Your task to perform on an android device: Clear all items from cart on walmart. Image 0: 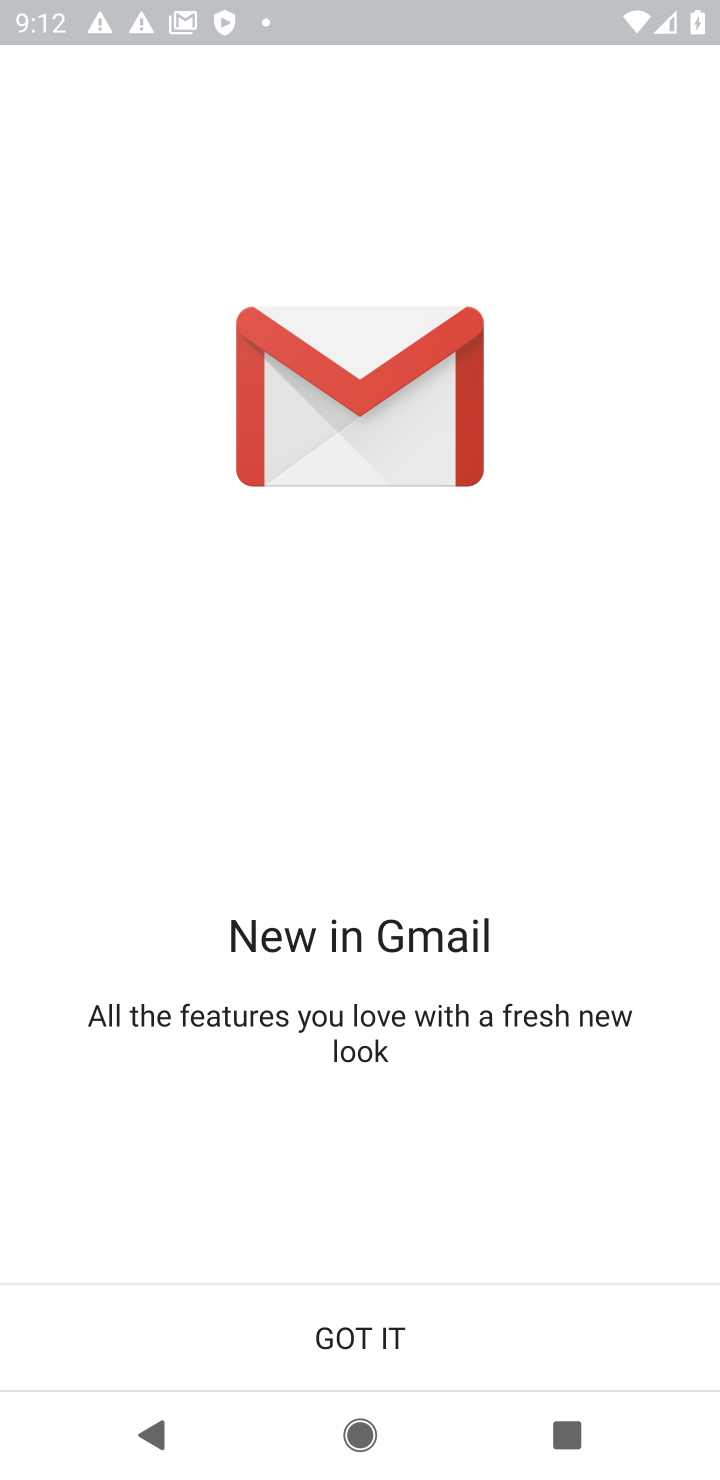
Step 0: press home button
Your task to perform on an android device: Clear all items from cart on walmart. Image 1: 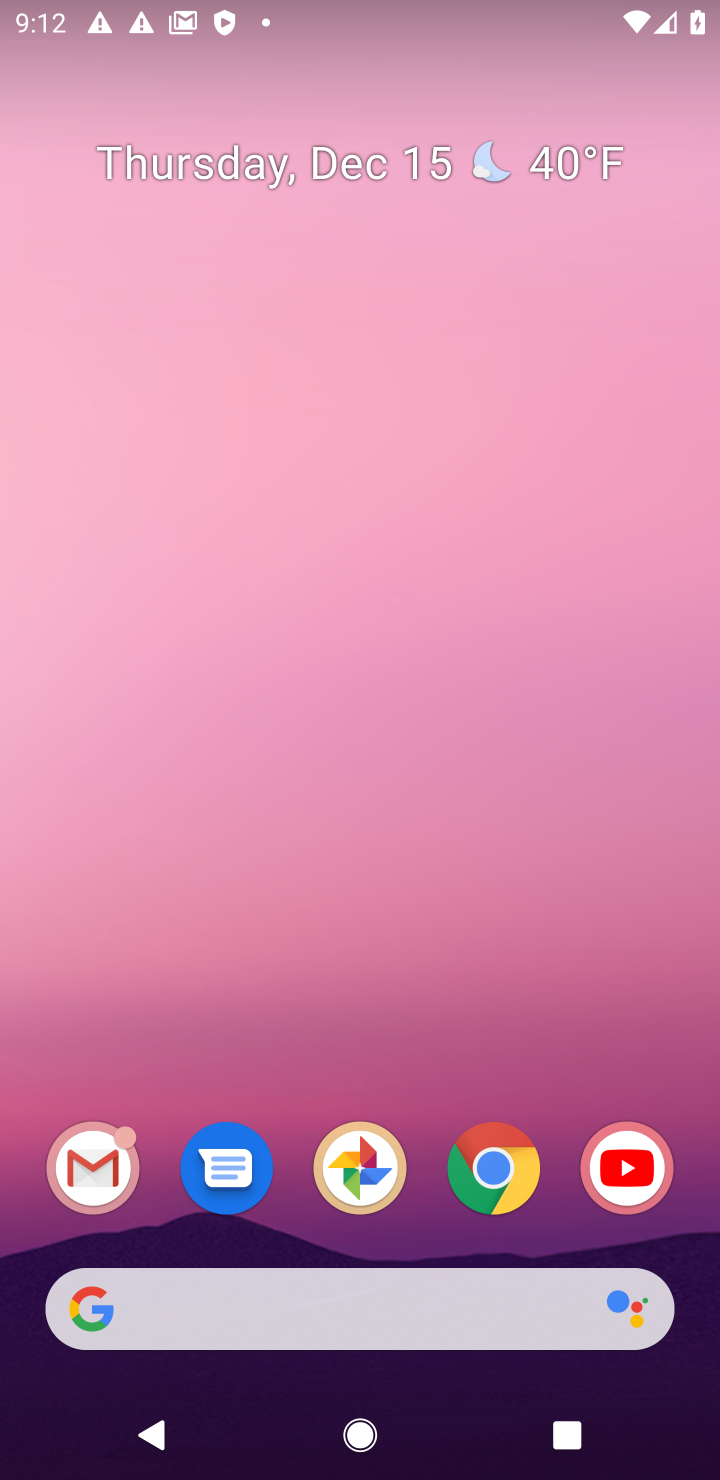
Step 1: click (499, 1172)
Your task to perform on an android device: Clear all items from cart on walmart. Image 2: 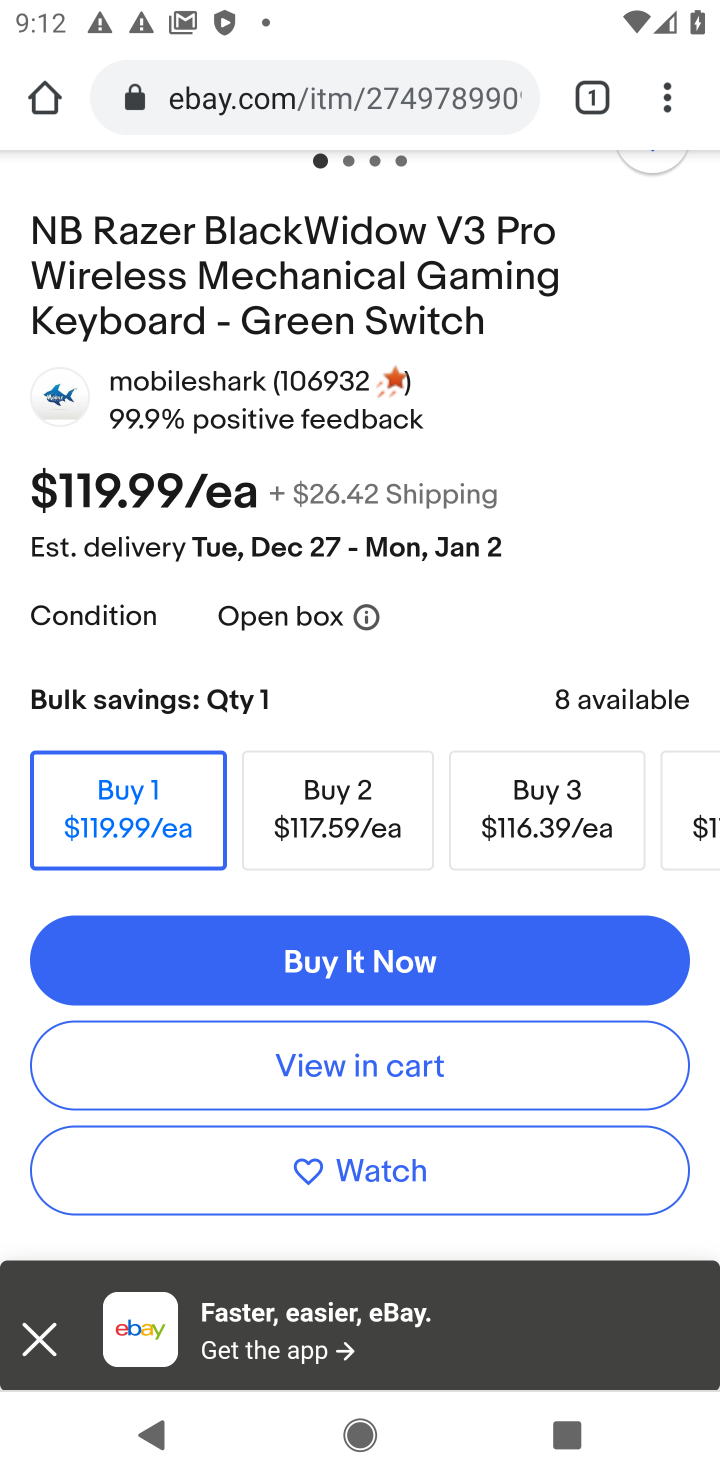
Step 2: click (341, 97)
Your task to perform on an android device: Clear all items from cart on walmart. Image 3: 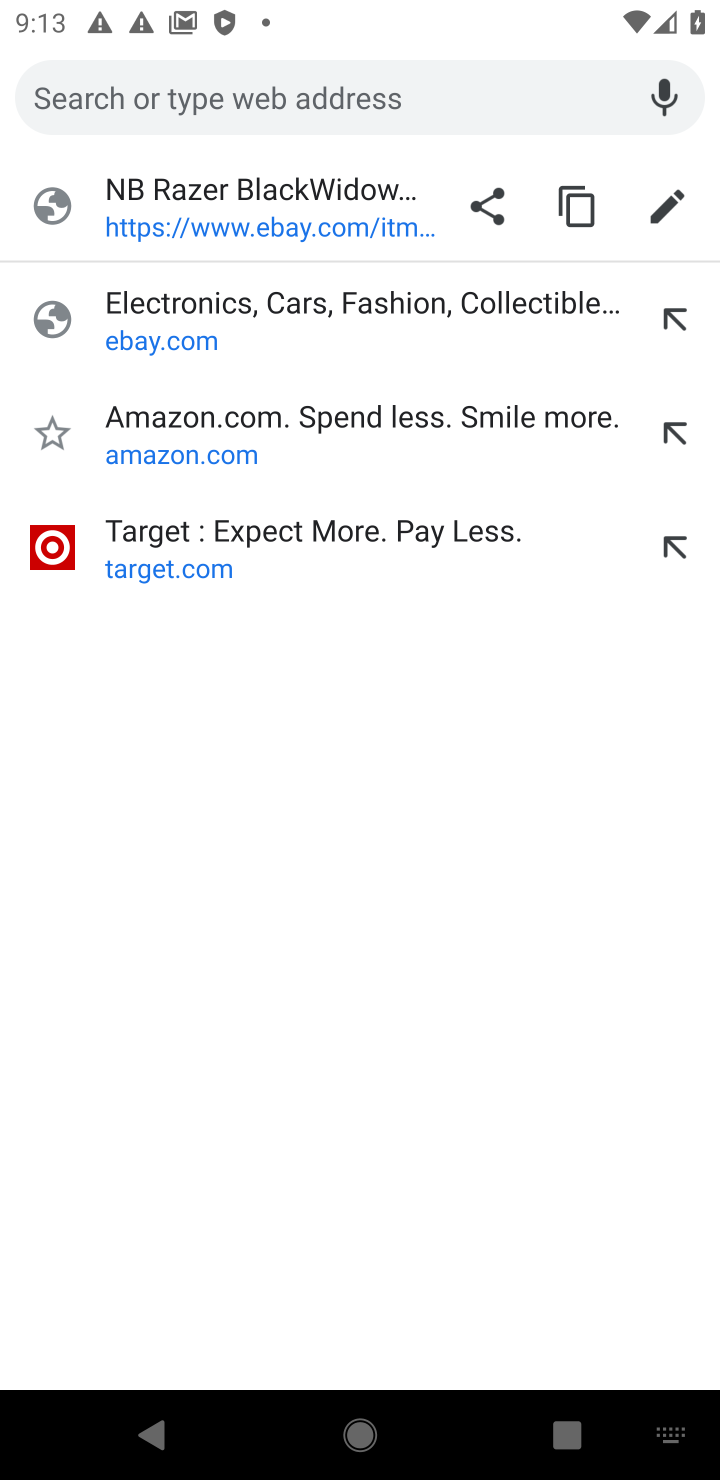
Step 3: type "WALMART"
Your task to perform on an android device: Clear all items from cart on walmart. Image 4: 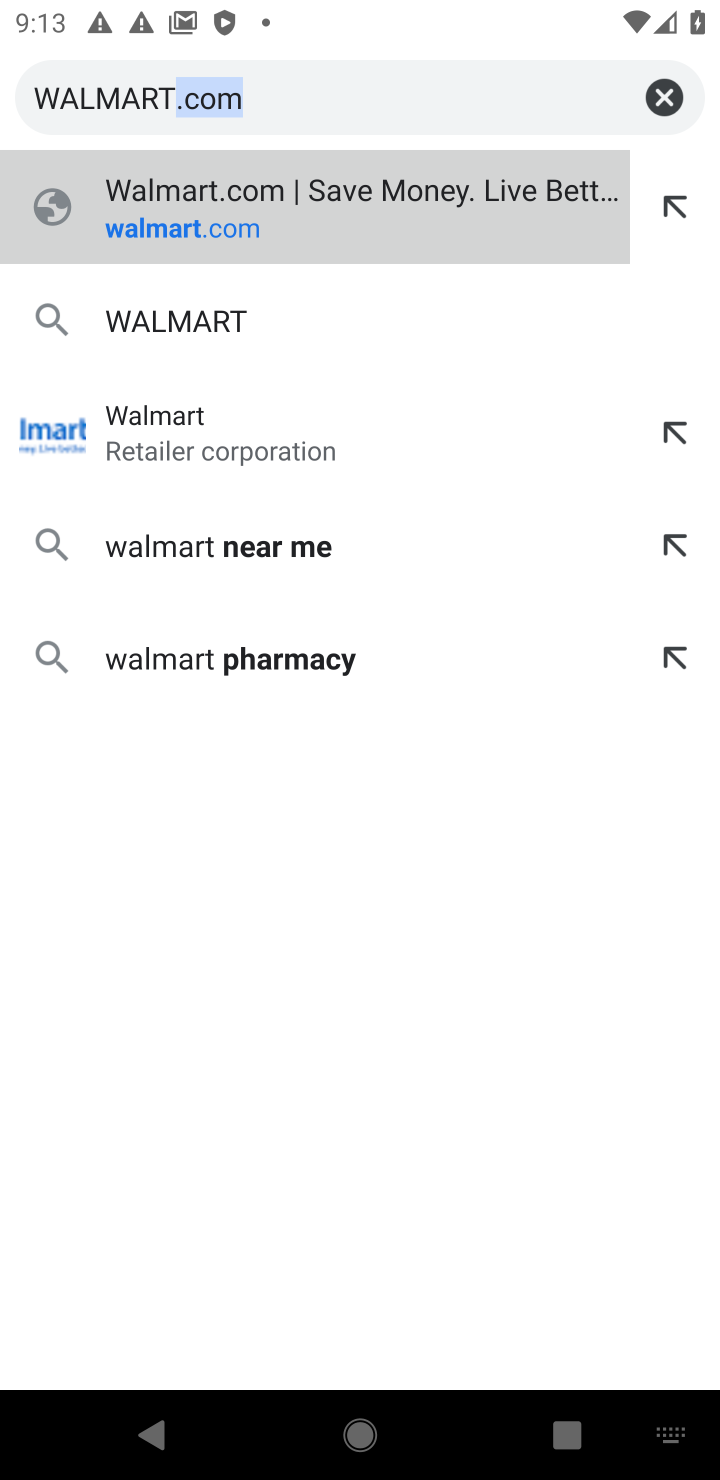
Step 4: click (204, 208)
Your task to perform on an android device: Clear all items from cart on walmart. Image 5: 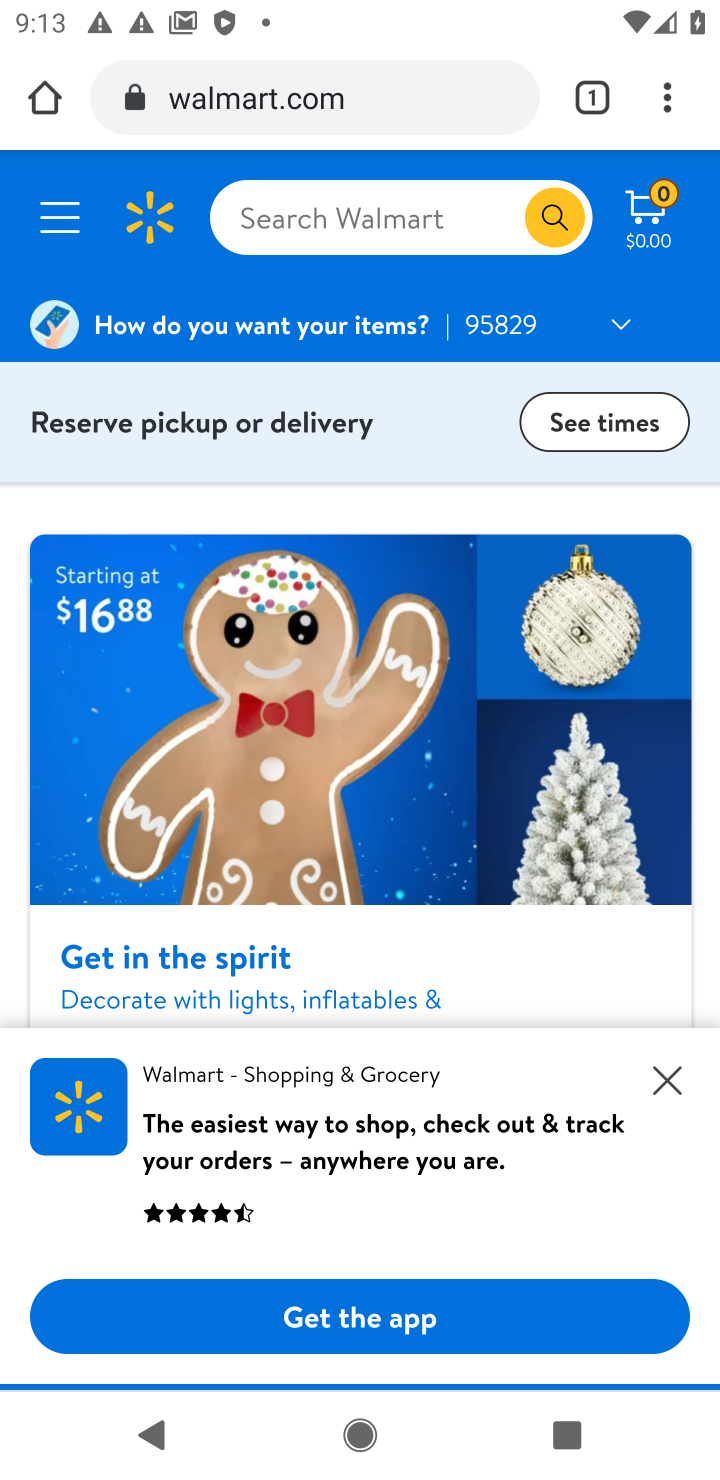
Step 5: task complete